Your task to perform on an android device: Open calendar and show me the second week of next month Image 0: 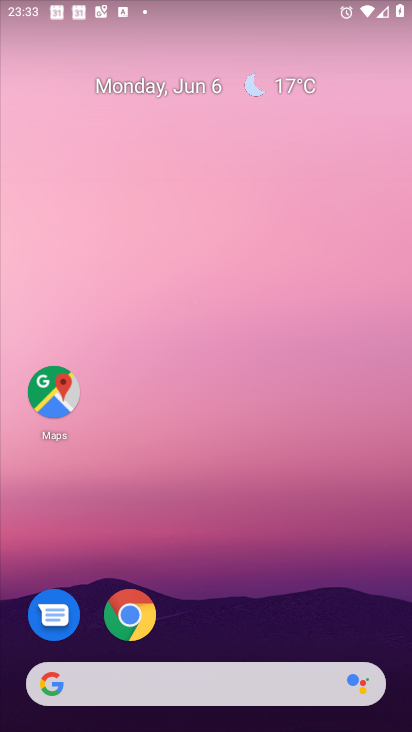
Step 0: drag from (389, 711) to (301, 154)
Your task to perform on an android device: Open calendar and show me the second week of next month Image 1: 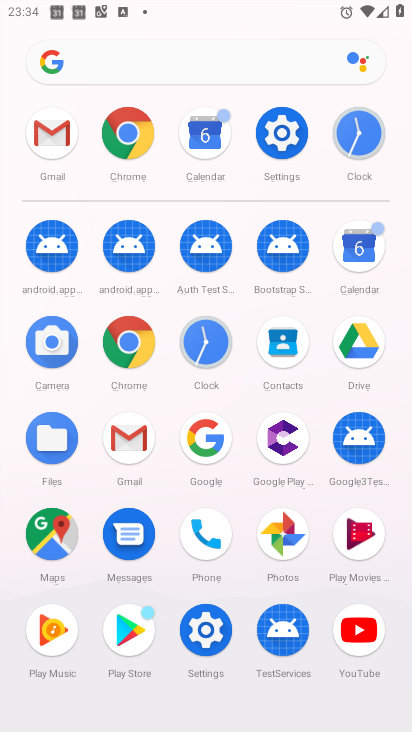
Step 1: click (292, 130)
Your task to perform on an android device: Open calendar and show me the second week of next month Image 2: 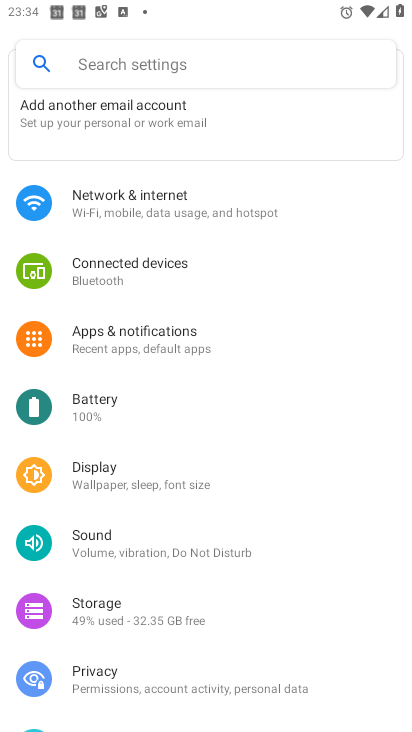
Step 2: press back button
Your task to perform on an android device: Open calendar and show me the second week of next month Image 3: 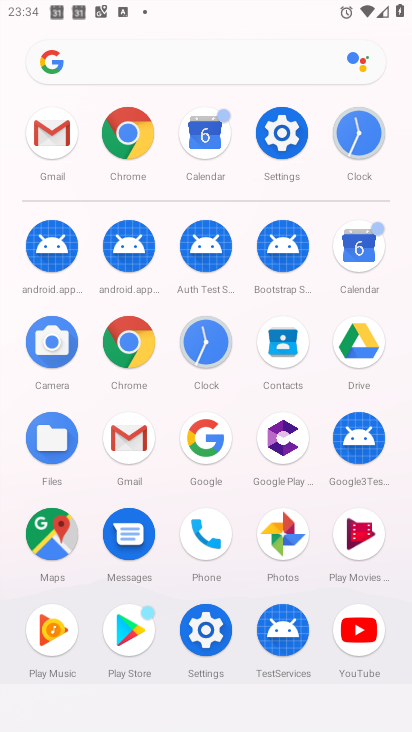
Step 3: click (349, 264)
Your task to perform on an android device: Open calendar and show me the second week of next month Image 4: 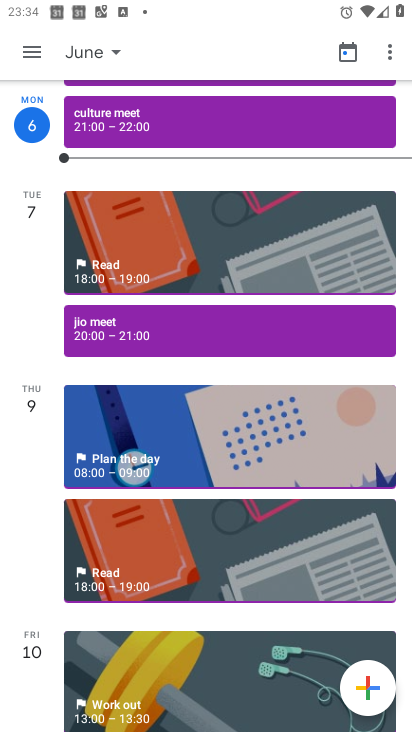
Step 4: click (31, 51)
Your task to perform on an android device: Open calendar and show me the second week of next month Image 5: 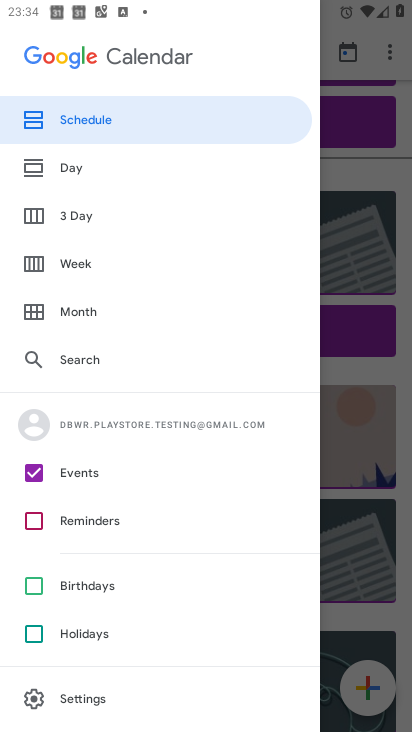
Step 5: press back button
Your task to perform on an android device: Open calendar and show me the second week of next month Image 6: 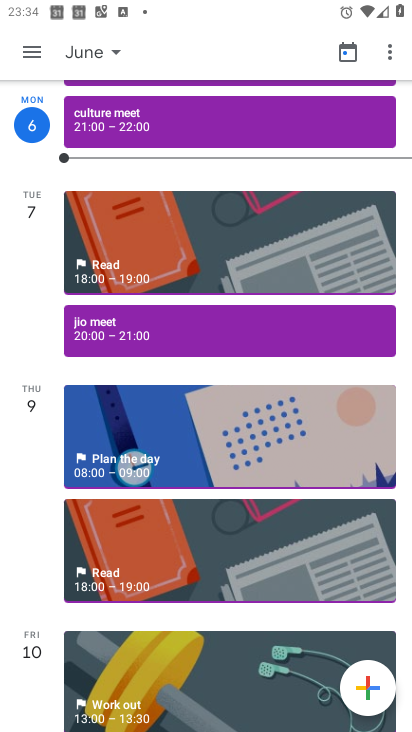
Step 6: click (115, 50)
Your task to perform on an android device: Open calendar and show me the second week of next month Image 7: 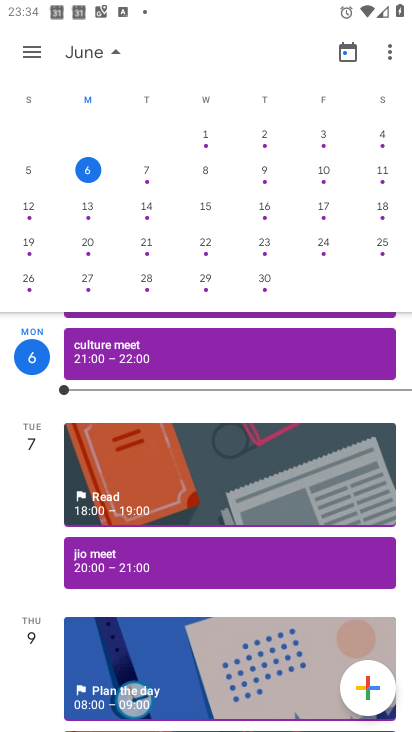
Step 7: drag from (389, 221) to (65, 215)
Your task to perform on an android device: Open calendar and show me the second week of next month Image 8: 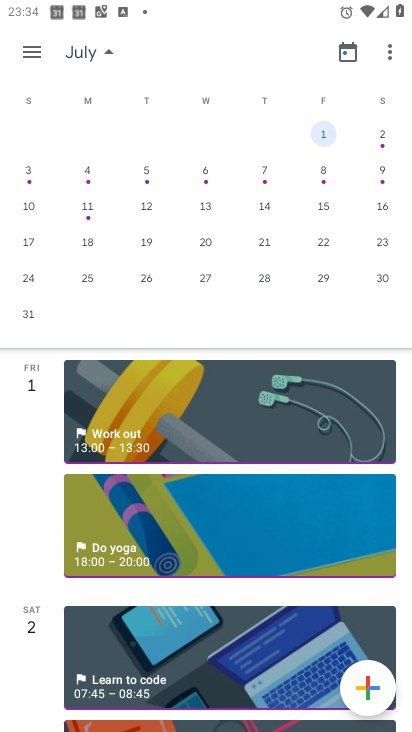
Step 8: click (204, 173)
Your task to perform on an android device: Open calendar and show me the second week of next month Image 9: 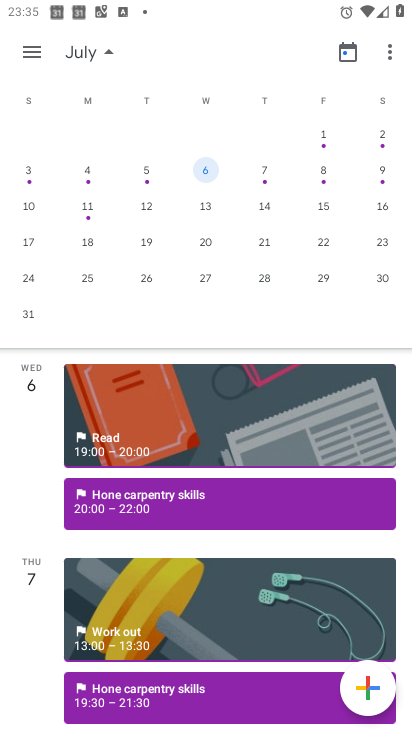
Step 9: click (30, 60)
Your task to perform on an android device: Open calendar and show me the second week of next month Image 10: 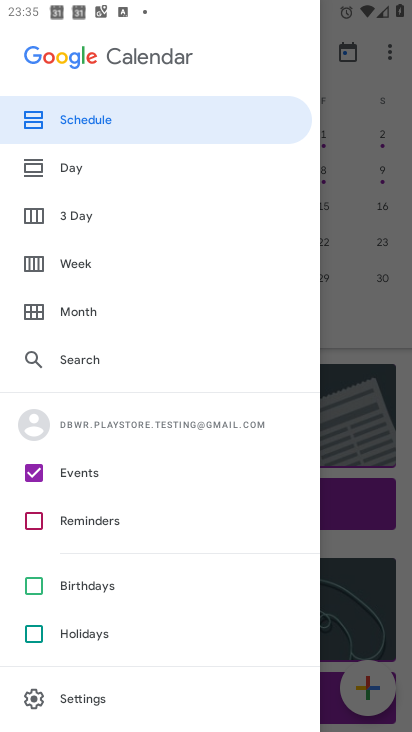
Step 10: click (75, 260)
Your task to perform on an android device: Open calendar and show me the second week of next month Image 11: 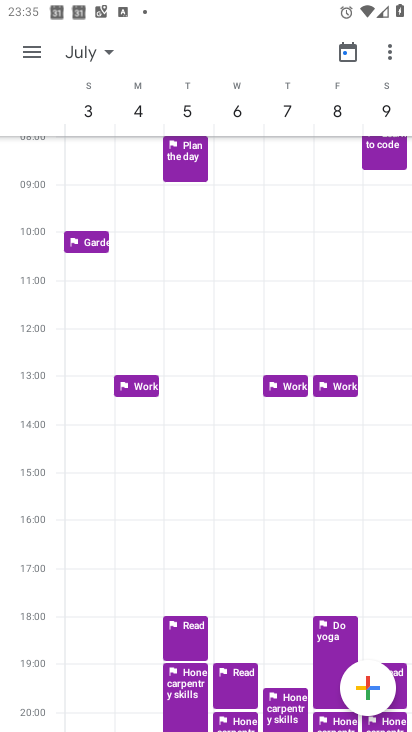
Step 11: task complete